Your task to perform on an android device: toggle wifi Image 0: 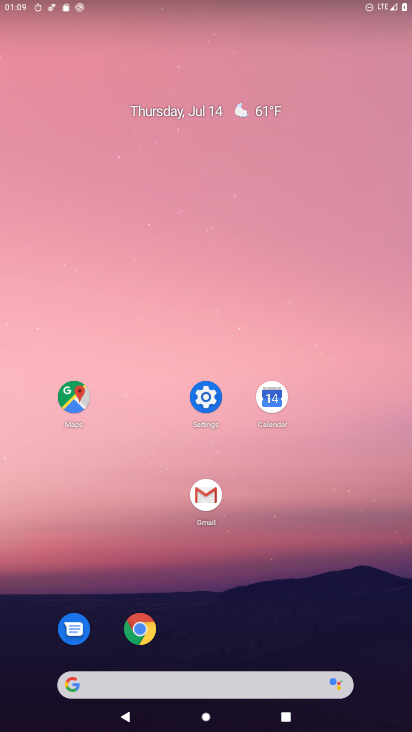
Step 0: click (203, 389)
Your task to perform on an android device: toggle wifi Image 1: 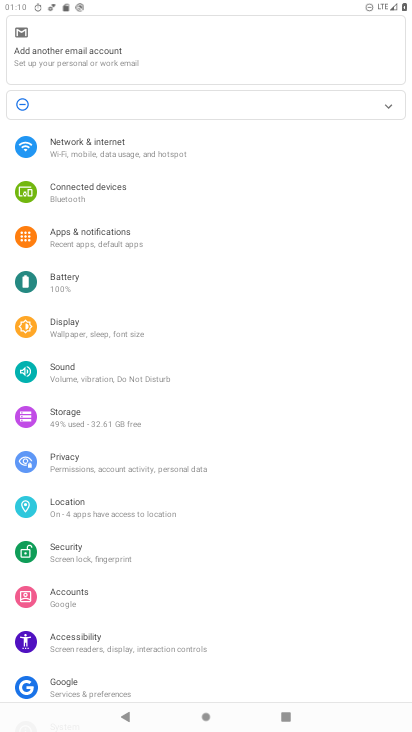
Step 1: click (122, 147)
Your task to perform on an android device: toggle wifi Image 2: 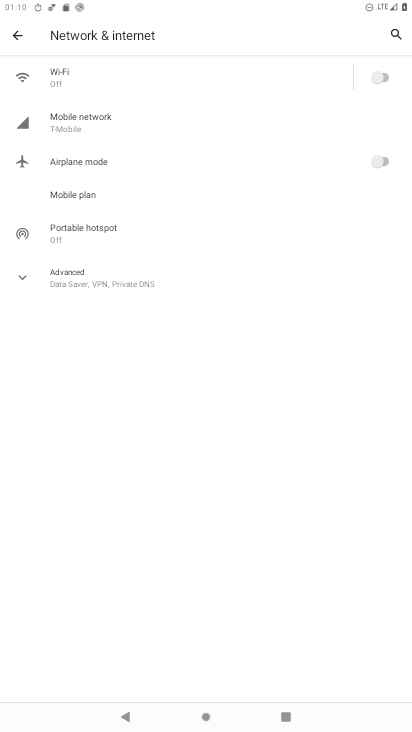
Step 2: click (380, 75)
Your task to perform on an android device: toggle wifi Image 3: 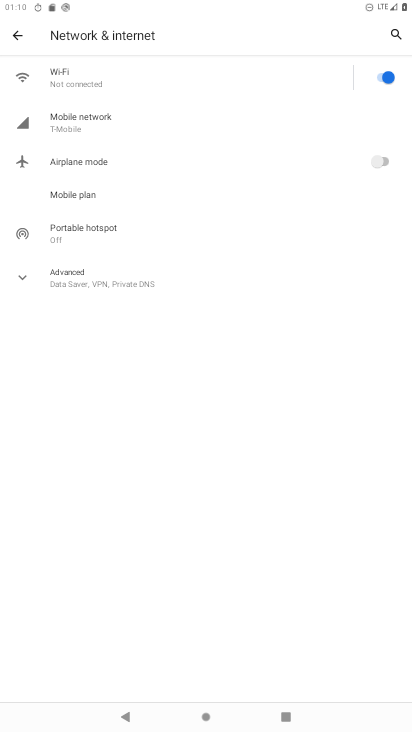
Step 3: task complete